Your task to perform on an android device: see sites visited before in the chrome app Image 0: 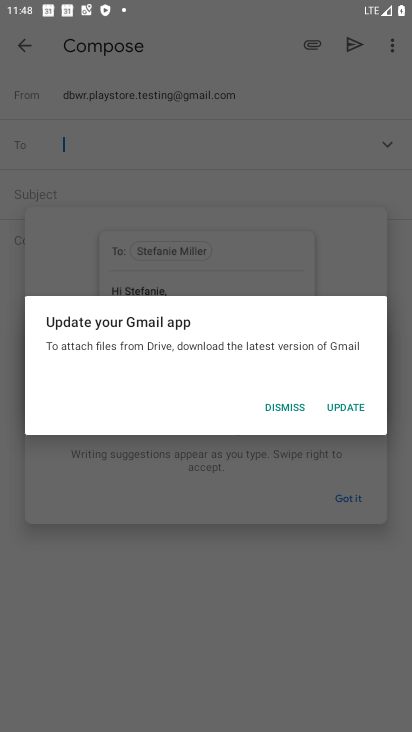
Step 0: press back button
Your task to perform on an android device: see sites visited before in the chrome app Image 1: 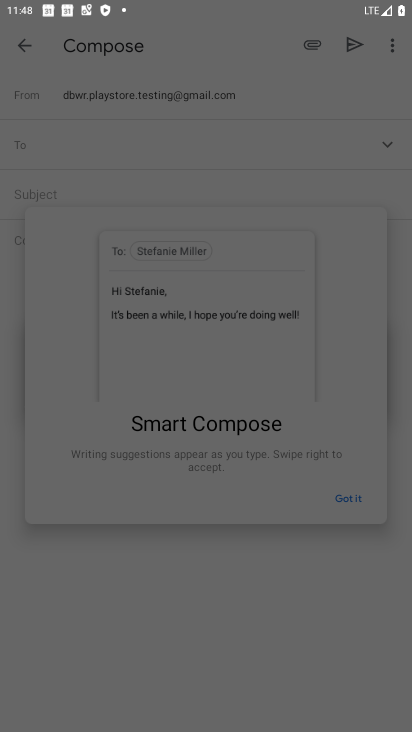
Step 1: press home button
Your task to perform on an android device: see sites visited before in the chrome app Image 2: 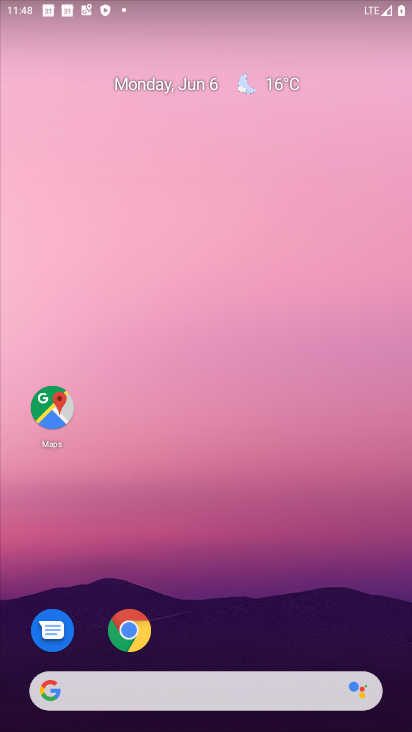
Step 2: click (126, 649)
Your task to perform on an android device: see sites visited before in the chrome app Image 3: 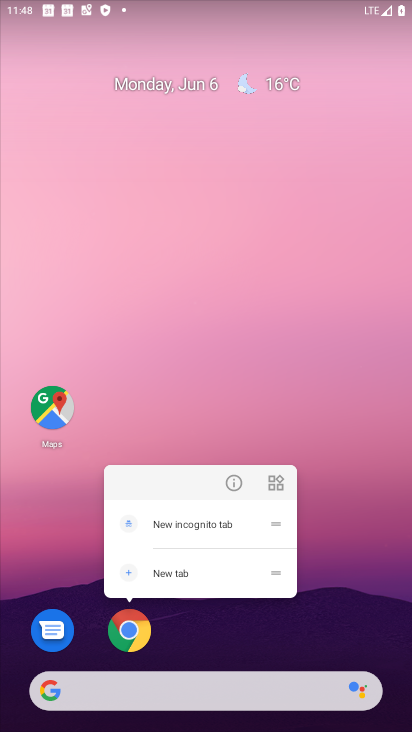
Step 3: click (140, 636)
Your task to perform on an android device: see sites visited before in the chrome app Image 4: 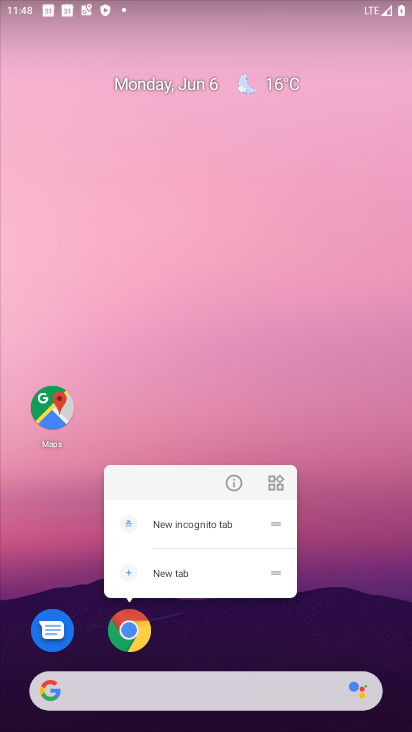
Step 4: click (138, 633)
Your task to perform on an android device: see sites visited before in the chrome app Image 5: 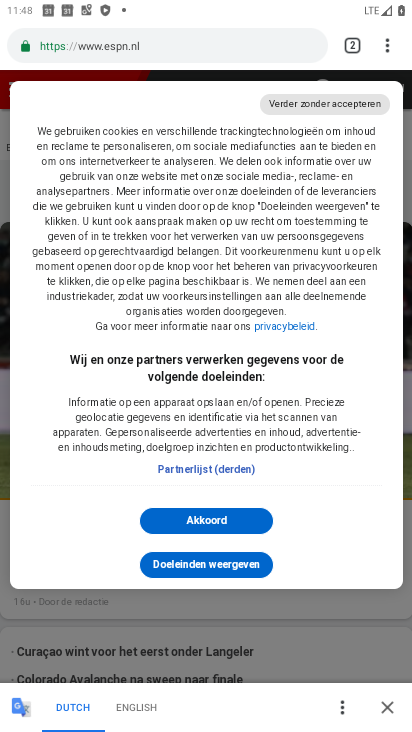
Step 5: task complete